Your task to perform on an android device: Open Android settings Image 0: 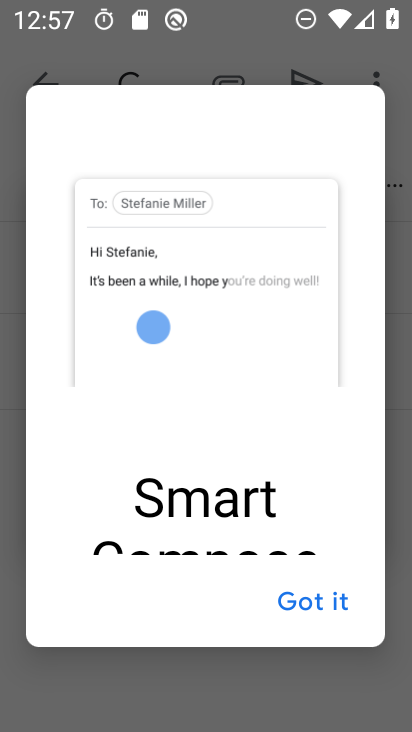
Step 0: press home button
Your task to perform on an android device: Open Android settings Image 1: 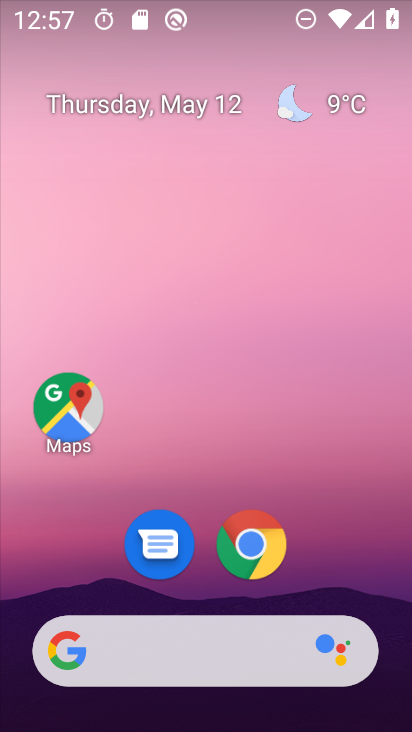
Step 1: drag from (209, 725) to (212, 215)
Your task to perform on an android device: Open Android settings Image 2: 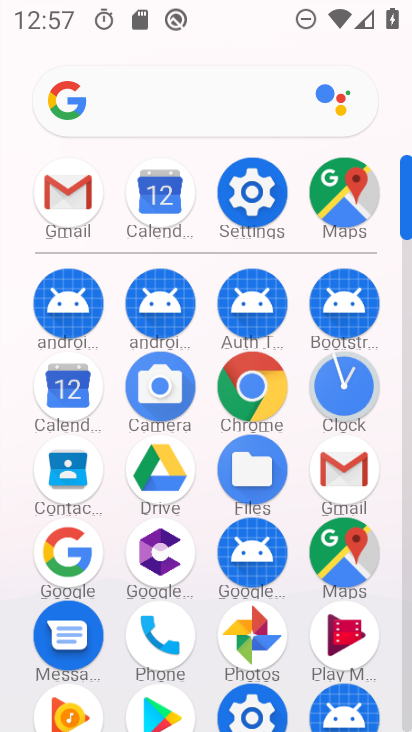
Step 2: click (245, 191)
Your task to perform on an android device: Open Android settings Image 3: 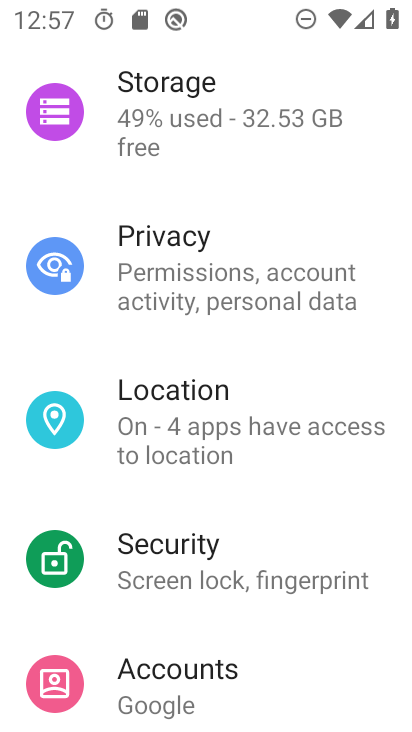
Step 3: task complete